Your task to perform on an android device: change text size in settings app Image 0: 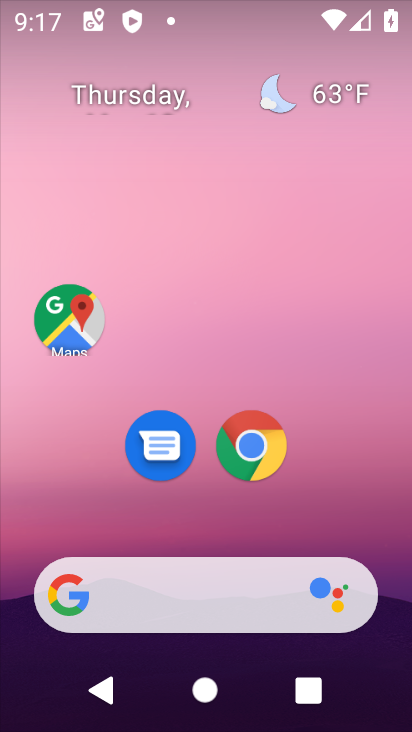
Step 0: drag from (220, 539) to (310, 5)
Your task to perform on an android device: change text size in settings app Image 1: 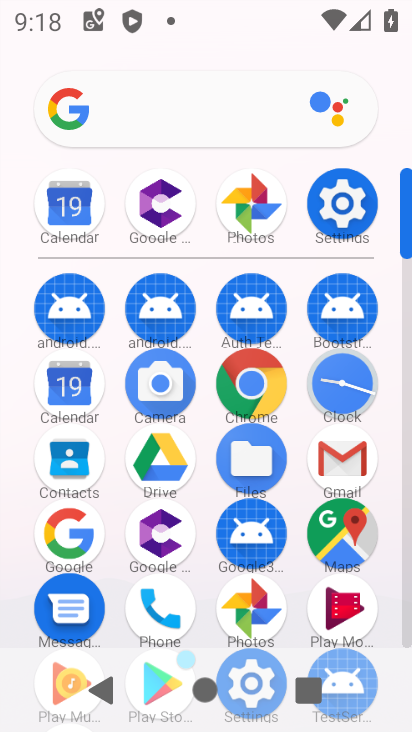
Step 1: drag from (213, 587) to (223, 357)
Your task to perform on an android device: change text size in settings app Image 2: 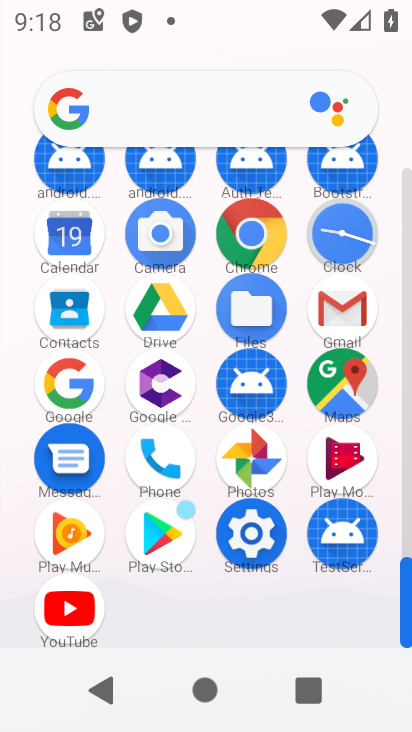
Step 2: click (257, 546)
Your task to perform on an android device: change text size in settings app Image 3: 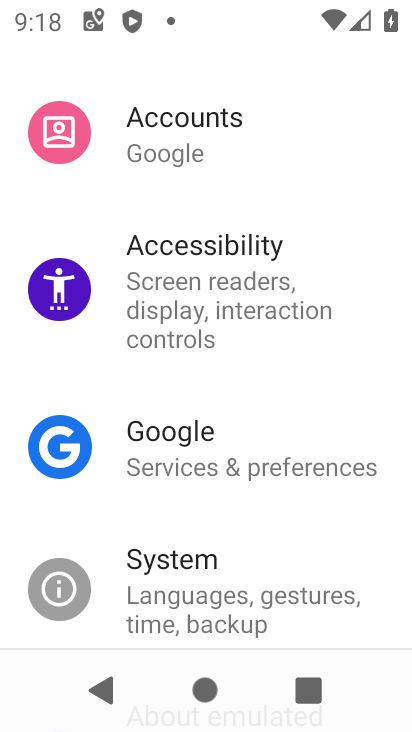
Step 3: drag from (256, 324) to (216, 617)
Your task to perform on an android device: change text size in settings app Image 4: 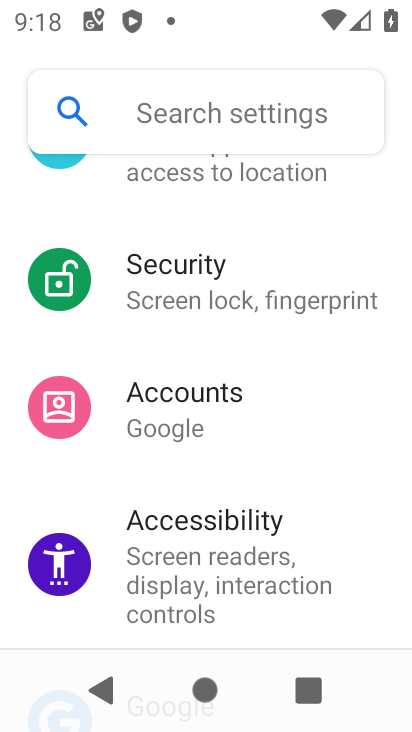
Step 4: drag from (225, 336) to (163, 627)
Your task to perform on an android device: change text size in settings app Image 5: 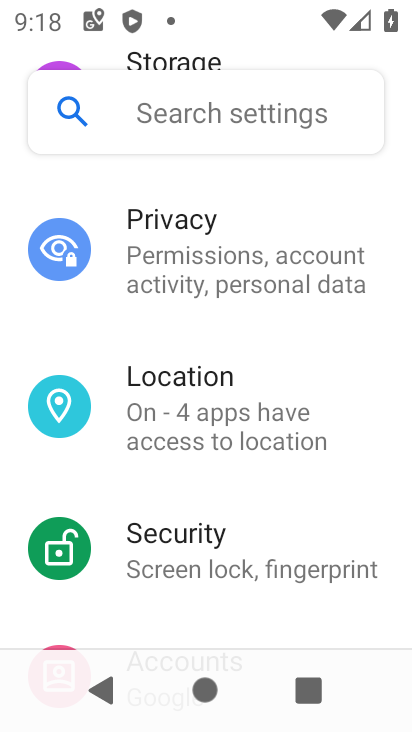
Step 5: drag from (197, 337) to (142, 721)
Your task to perform on an android device: change text size in settings app Image 6: 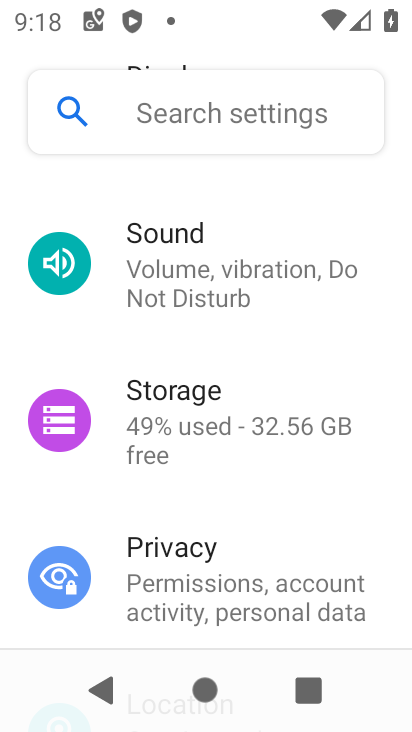
Step 6: drag from (191, 365) to (187, 550)
Your task to perform on an android device: change text size in settings app Image 7: 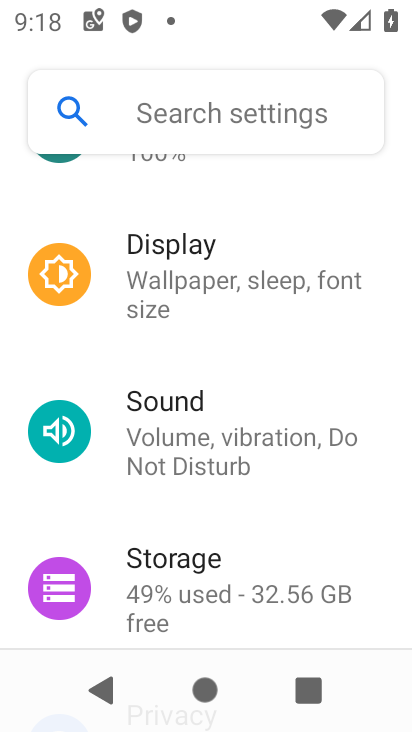
Step 7: drag from (201, 344) to (182, 605)
Your task to perform on an android device: change text size in settings app Image 8: 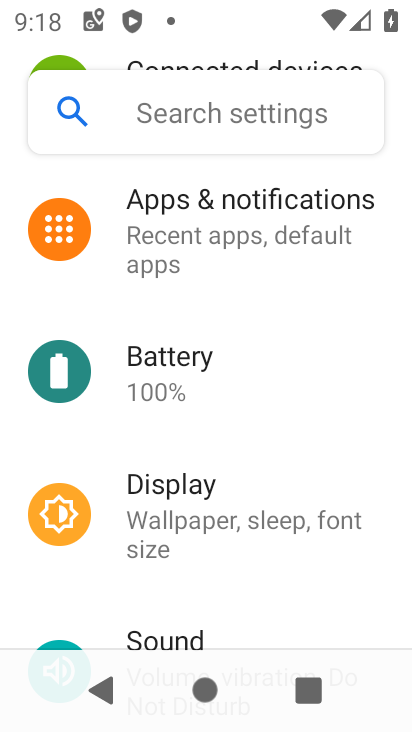
Step 8: drag from (233, 490) to (248, 400)
Your task to perform on an android device: change text size in settings app Image 9: 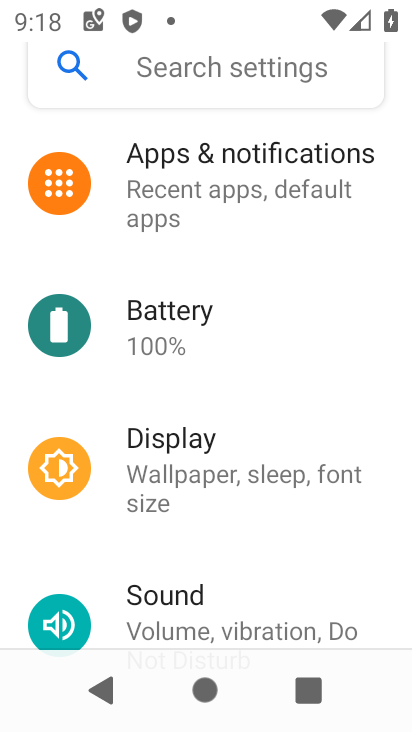
Step 9: click (191, 484)
Your task to perform on an android device: change text size in settings app Image 10: 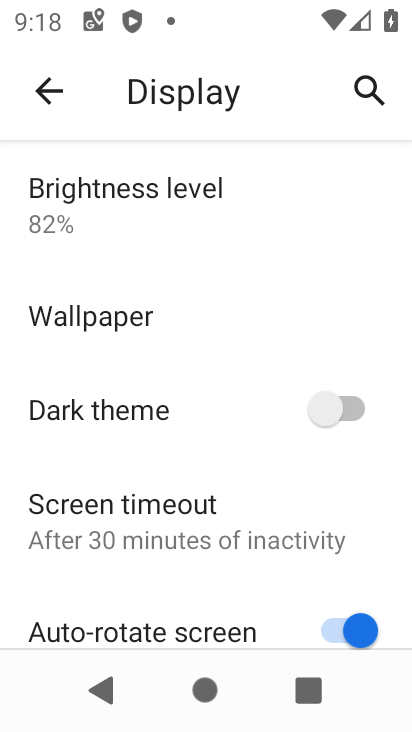
Step 10: drag from (158, 543) to (199, 266)
Your task to perform on an android device: change text size in settings app Image 11: 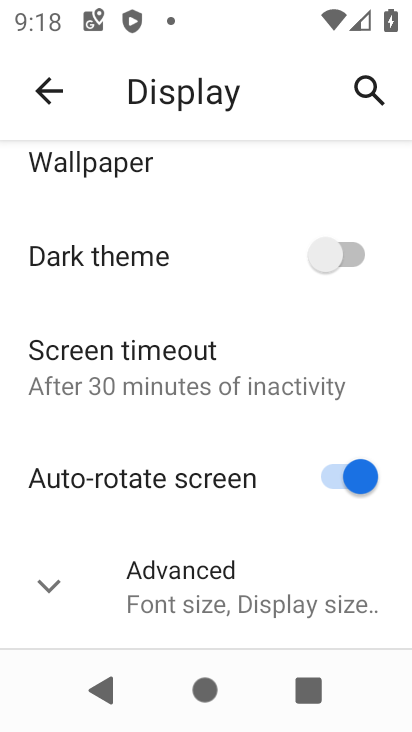
Step 11: click (177, 599)
Your task to perform on an android device: change text size in settings app Image 12: 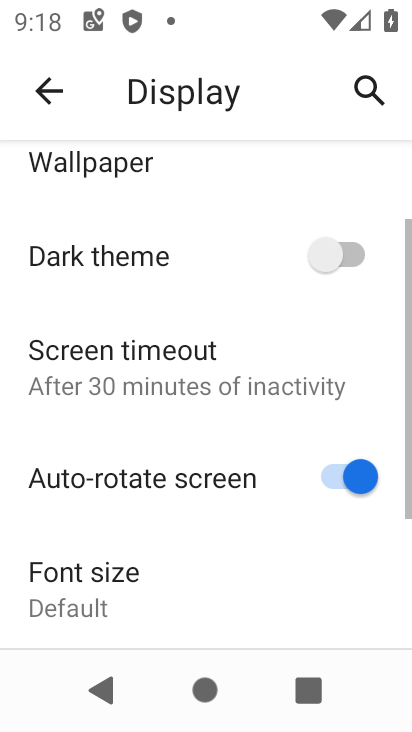
Step 12: drag from (177, 602) to (198, 389)
Your task to perform on an android device: change text size in settings app Image 13: 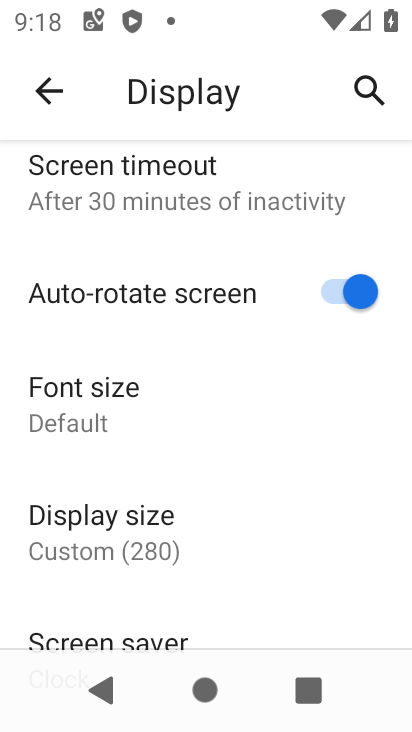
Step 13: click (98, 416)
Your task to perform on an android device: change text size in settings app Image 14: 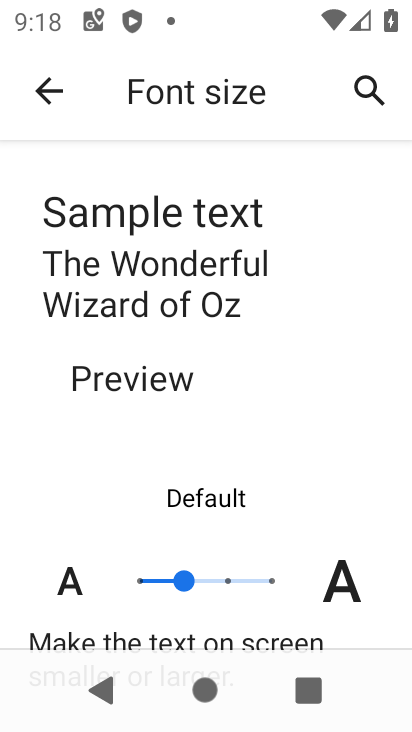
Step 14: click (146, 577)
Your task to perform on an android device: change text size in settings app Image 15: 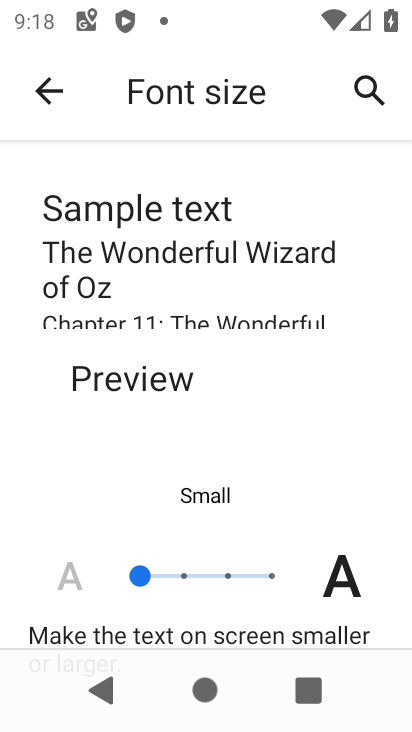
Step 15: task complete